Your task to perform on an android device: turn off location history Image 0: 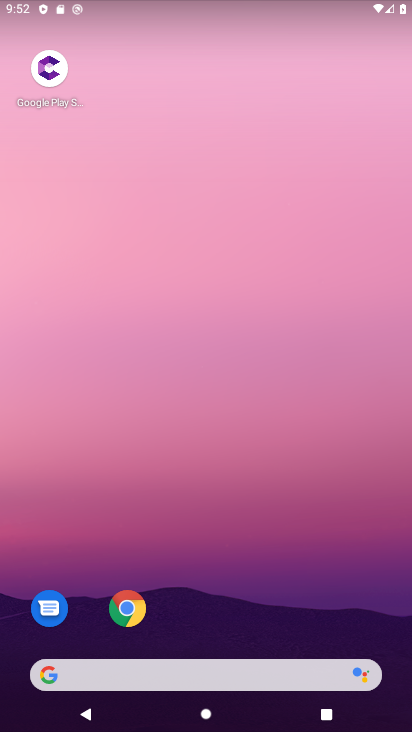
Step 0: drag from (259, 623) to (260, 65)
Your task to perform on an android device: turn off location history Image 1: 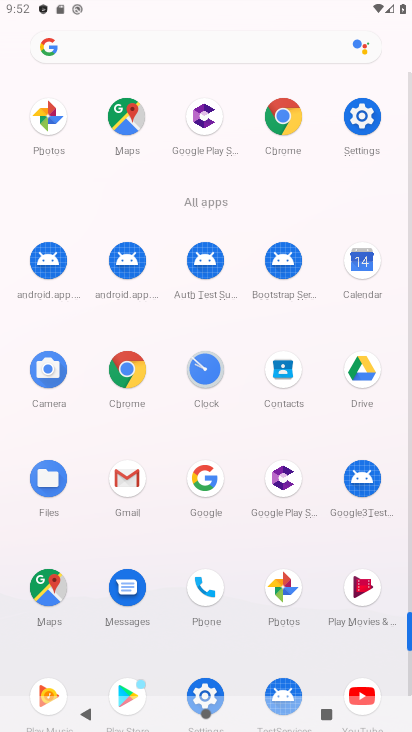
Step 1: drag from (168, 644) to (175, 234)
Your task to perform on an android device: turn off location history Image 2: 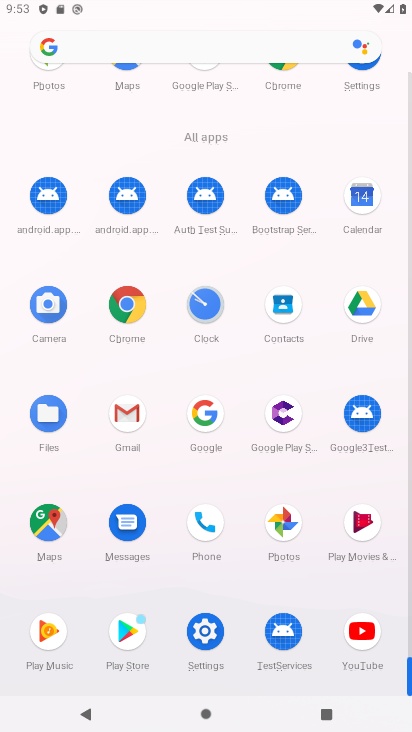
Step 2: click (209, 636)
Your task to perform on an android device: turn off location history Image 3: 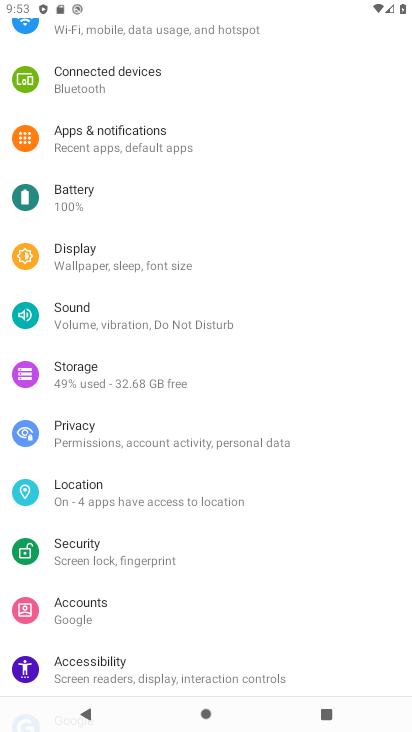
Step 3: click (134, 494)
Your task to perform on an android device: turn off location history Image 4: 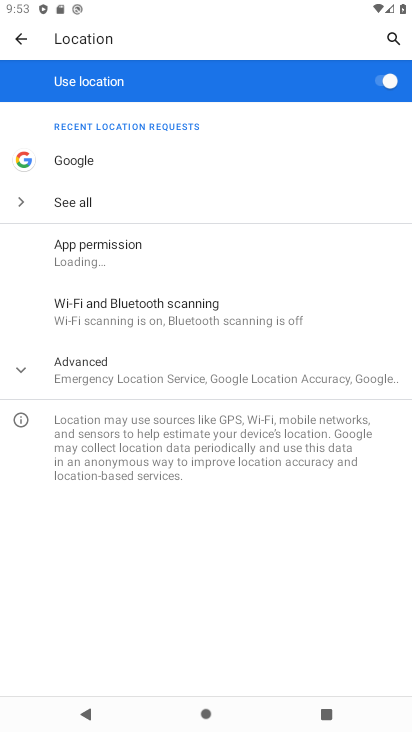
Step 4: click (125, 377)
Your task to perform on an android device: turn off location history Image 5: 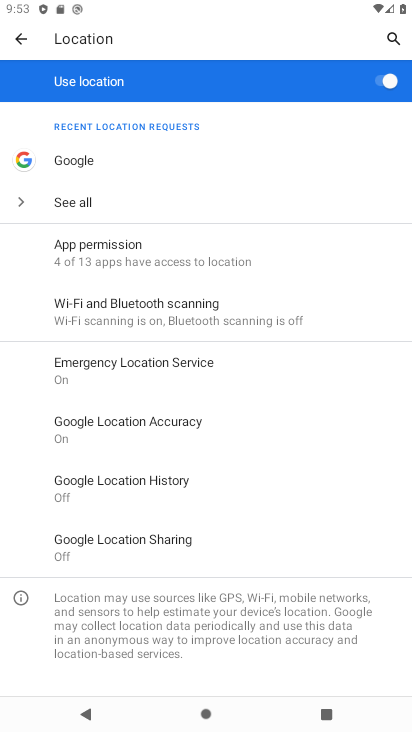
Step 5: click (134, 474)
Your task to perform on an android device: turn off location history Image 6: 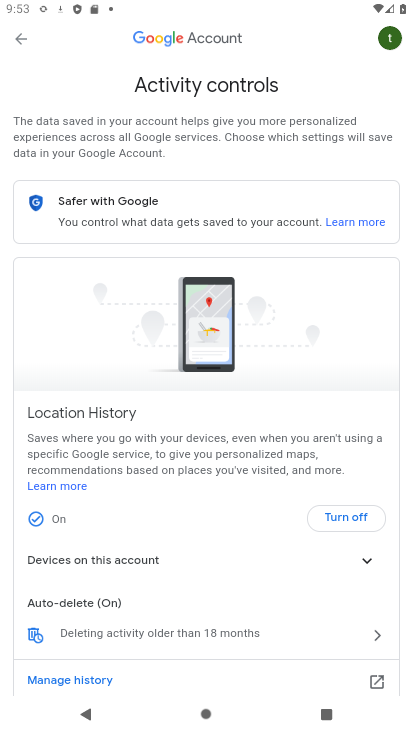
Step 6: click (354, 516)
Your task to perform on an android device: turn off location history Image 7: 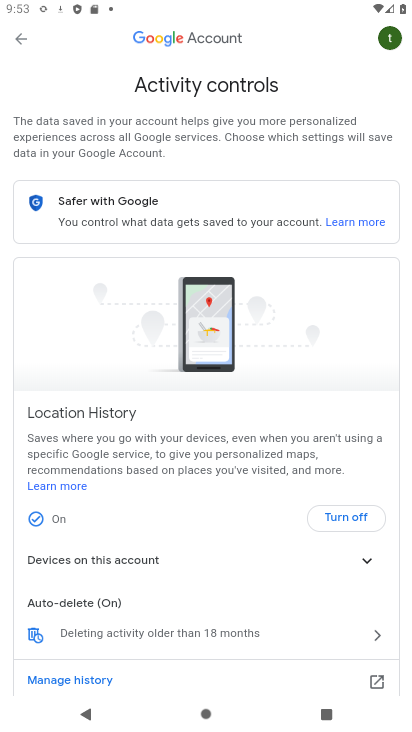
Step 7: click (345, 517)
Your task to perform on an android device: turn off location history Image 8: 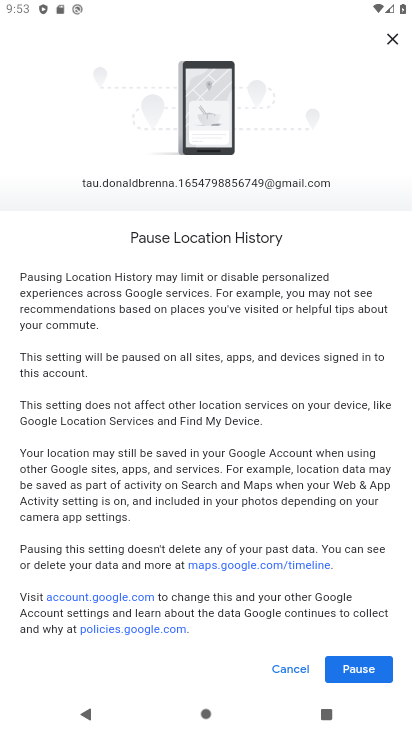
Step 8: click (361, 673)
Your task to perform on an android device: turn off location history Image 9: 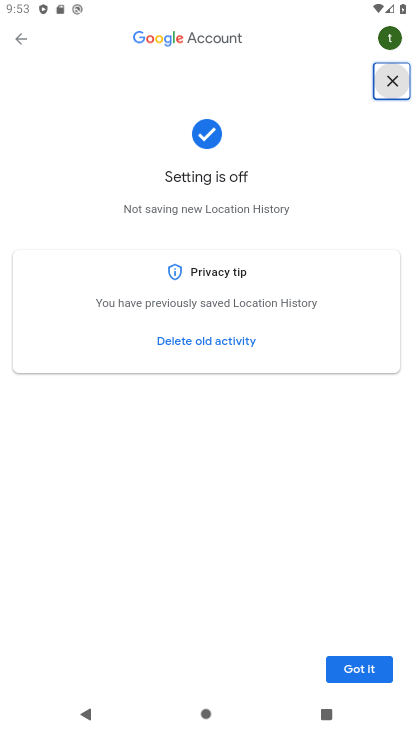
Step 9: click (364, 670)
Your task to perform on an android device: turn off location history Image 10: 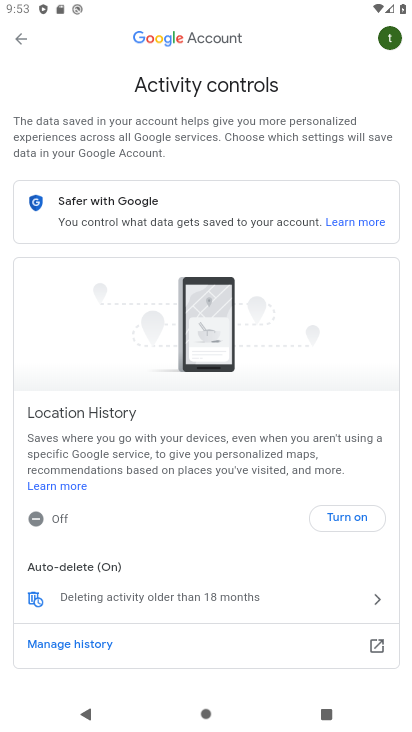
Step 10: task complete